Your task to perform on an android device: Turn on the flashlight Image 0: 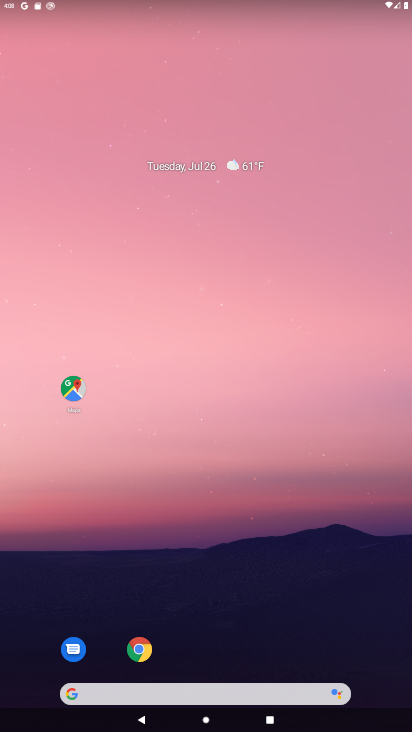
Step 0: task impossible